Your task to perform on an android device: toggle translation in the chrome app Image 0: 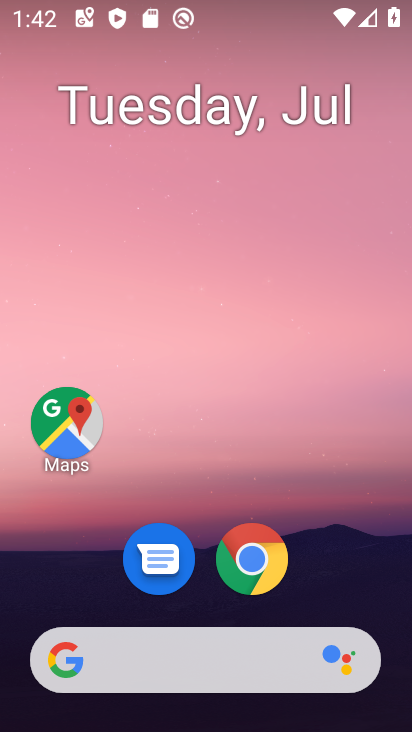
Step 0: drag from (388, 587) to (379, 114)
Your task to perform on an android device: toggle translation in the chrome app Image 1: 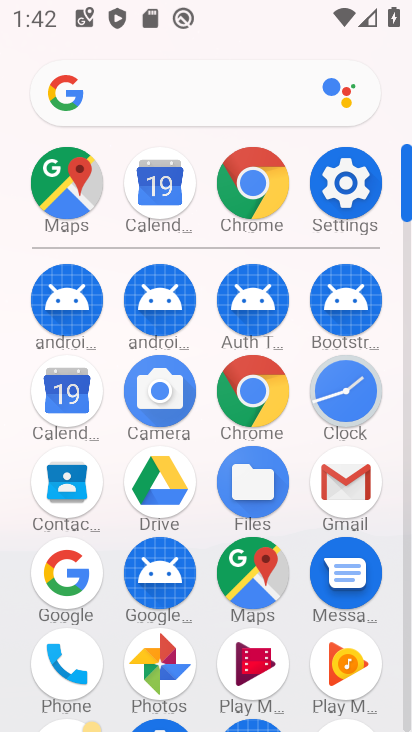
Step 1: click (275, 393)
Your task to perform on an android device: toggle translation in the chrome app Image 2: 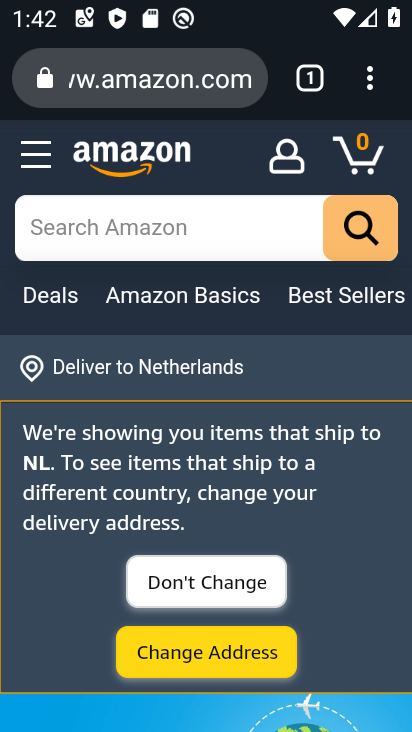
Step 2: click (374, 89)
Your task to perform on an android device: toggle translation in the chrome app Image 3: 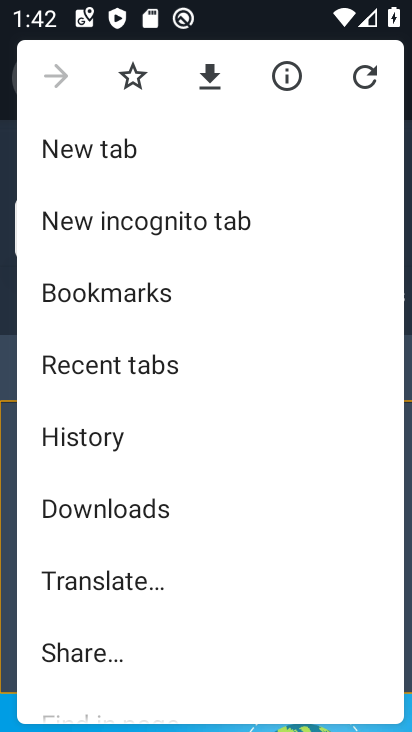
Step 3: drag from (273, 370) to (289, 497)
Your task to perform on an android device: toggle translation in the chrome app Image 4: 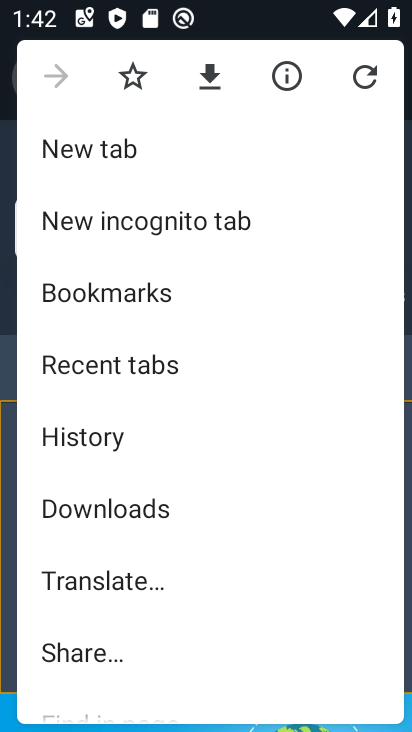
Step 4: drag from (290, 545) to (294, 420)
Your task to perform on an android device: toggle translation in the chrome app Image 5: 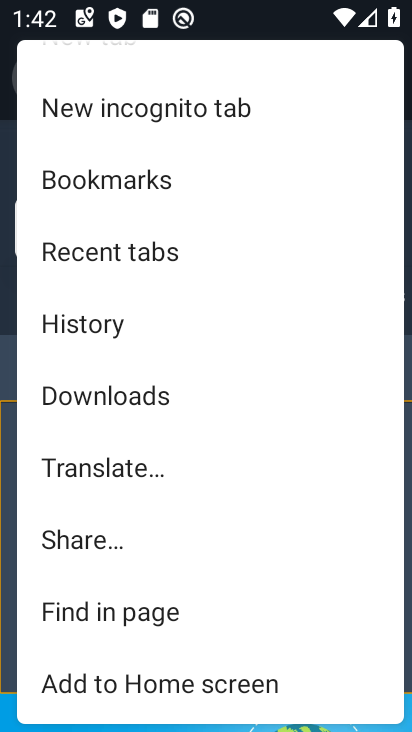
Step 5: drag from (309, 527) to (310, 421)
Your task to perform on an android device: toggle translation in the chrome app Image 6: 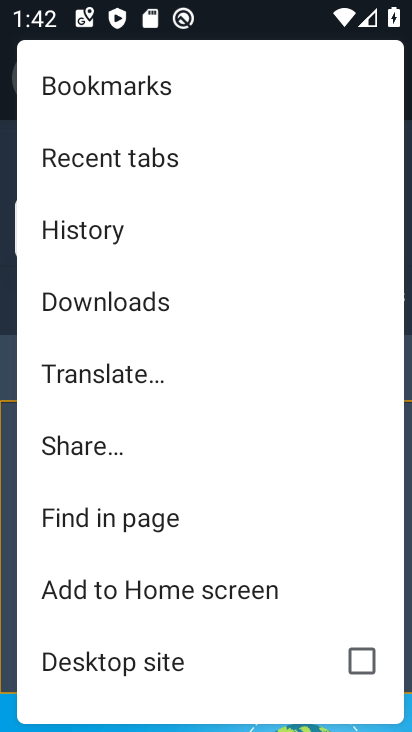
Step 6: drag from (311, 498) to (316, 385)
Your task to perform on an android device: toggle translation in the chrome app Image 7: 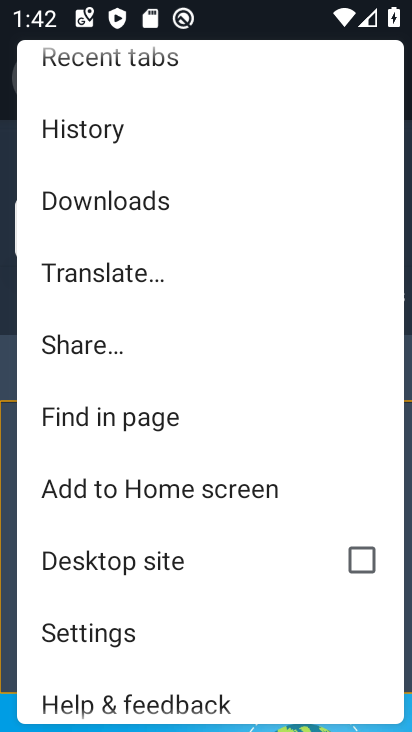
Step 7: drag from (311, 516) to (312, 407)
Your task to perform on an android device: toggle translation in the chrome app Image 8: 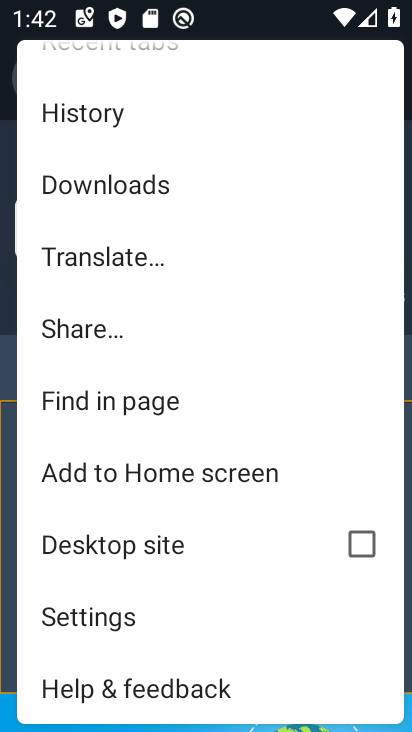
Step 8: click (230, 616)
Your task to perform on an android device: toggle translation in the chrome app Image 9: 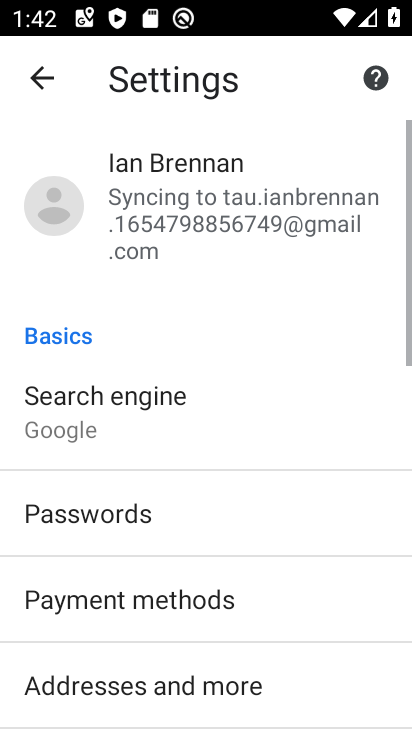
Step 9: drag from (307, 561) to (319, 486)
Your task to perform on an android device: toggle translation in the chrome app Image 10: 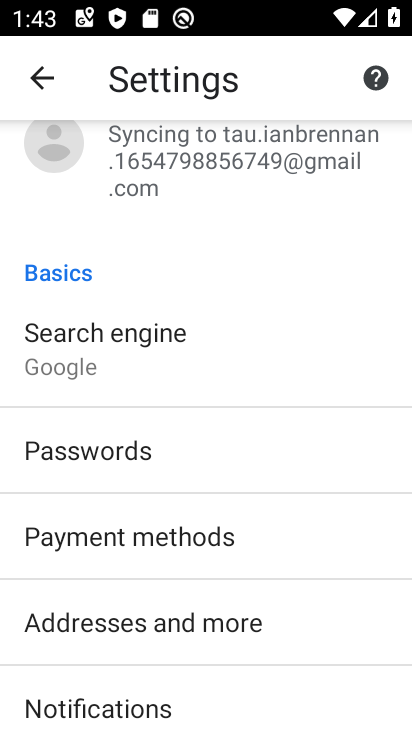
Step 10: drag from (321, 580) to (335, 477)
Your task to perform on an android device: toggle translation in the chrome app Image 11: 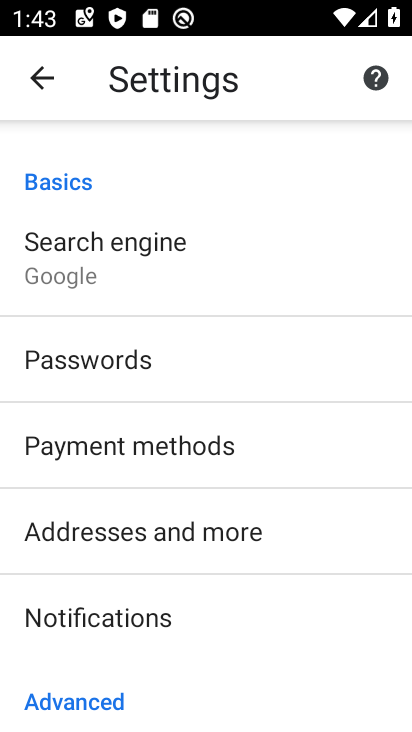
Step 11: drag from (339, 570) to (339, 477)
Your task to perform on an android device: toggle translation in the chrome app Image 12: 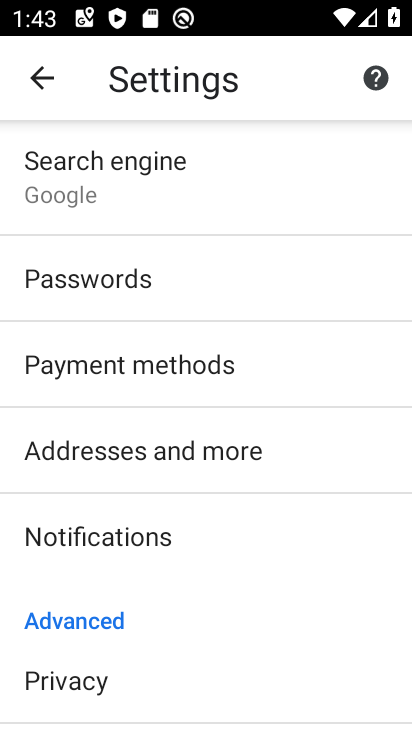
Step 12: drag from (330, 556) to (329, 431)
Your task to perform on an android device: toggle translation in the chrome app Image 13: 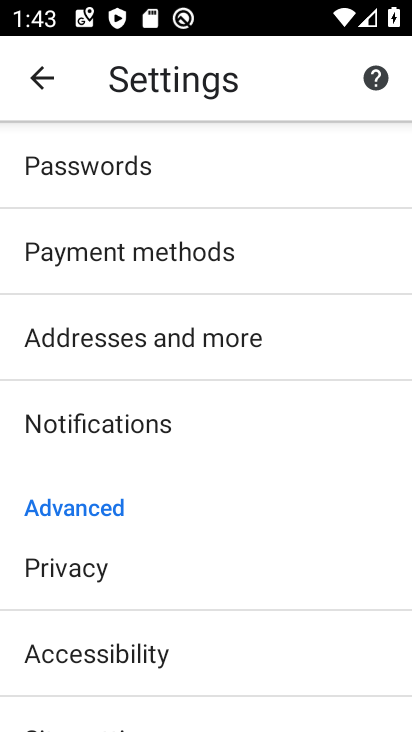
Step 13: drag from (319, 545) to (332, 309)
Your task to perform on an android device: toggle translation in the chrome app Image 14: 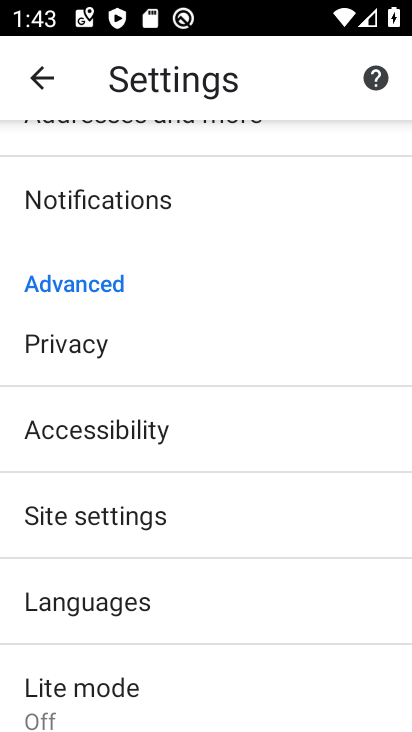
Step 14: drag from (332, 571) to (333, 395)
Your task to perform on an android device: toggle translation in the chrome app Image 15: 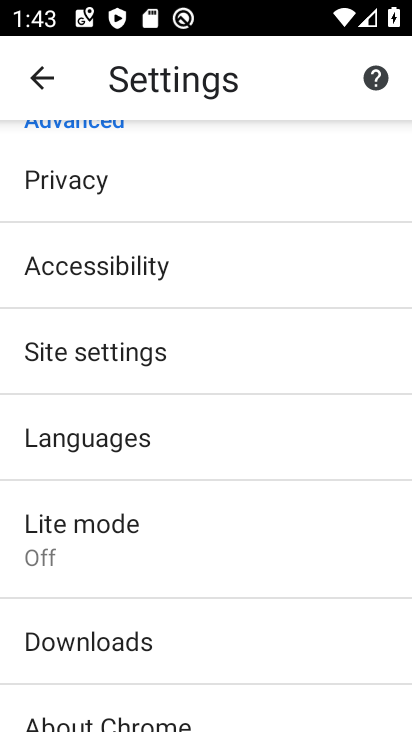
Step 15: click (263, 430)
Your task to perform on an android device: toggle translation in the chrome app Image 16: 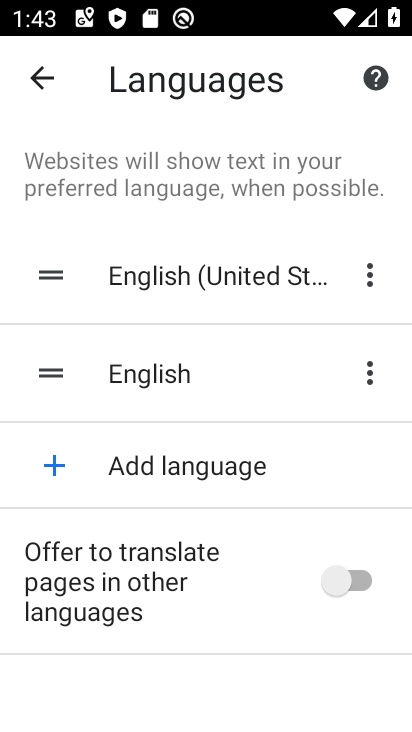
Step 16: click (358, 592)
Your task to perform on an android device: toggle translation in the chrome app Image 17: 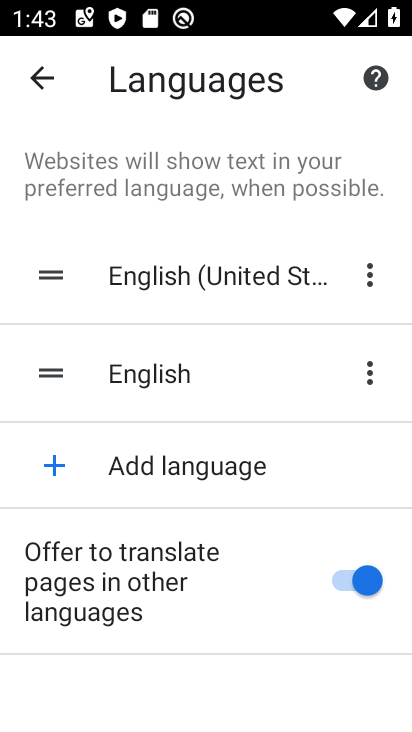
Step 17: task complete